Your task to perform on an android device: Do I have any events this weekend? Image 0: 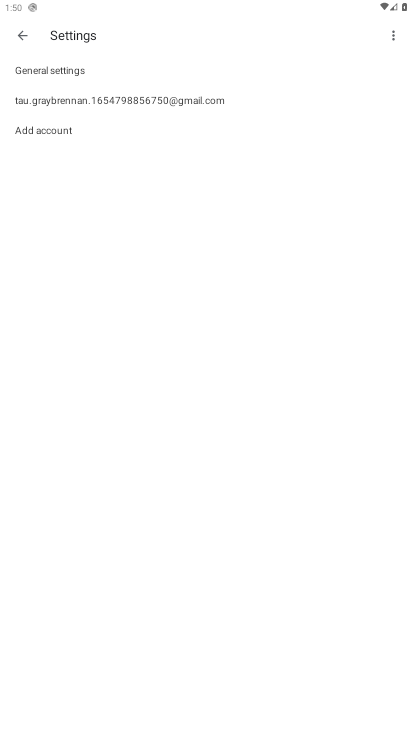
Step 0: press home button
Your task to perform on an android device: Do I have any events this weekend? Image 1: 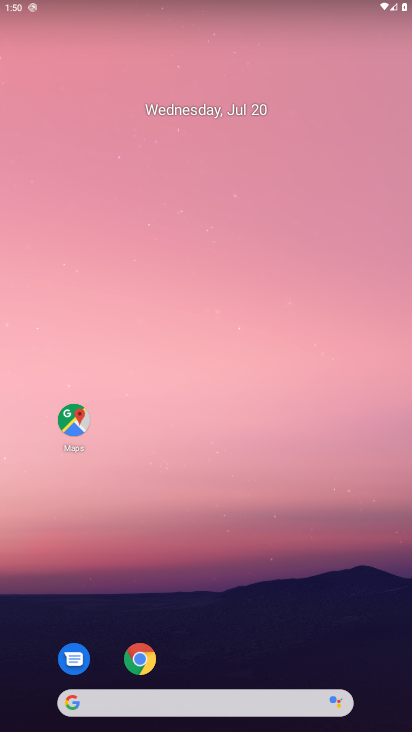
Step 1: drag from (35, 702) to (268, 94)
Your task to perform on an android device: Do I have any events this weekend? Image 2: 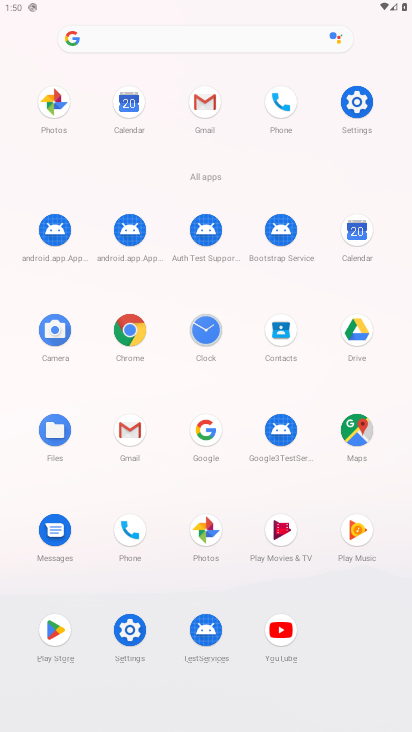
Step 2: click (351, 239)
Your task to perform on an android device: Do I have any events this weekend? Image 3: 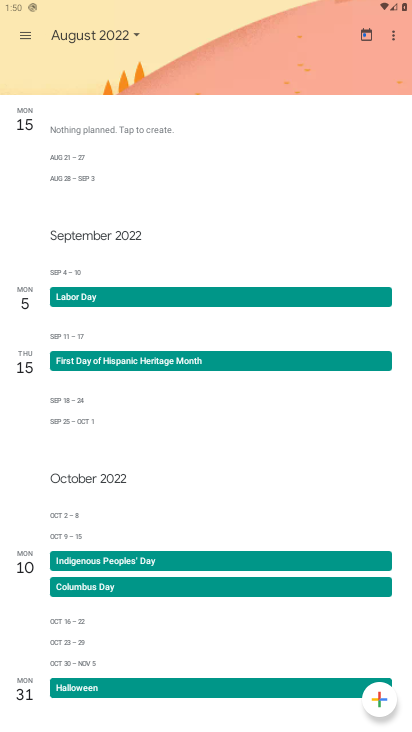
Step 3: click (62, 41)
Your task to perform on an android device: Do I have any events this weekend? Image 4: 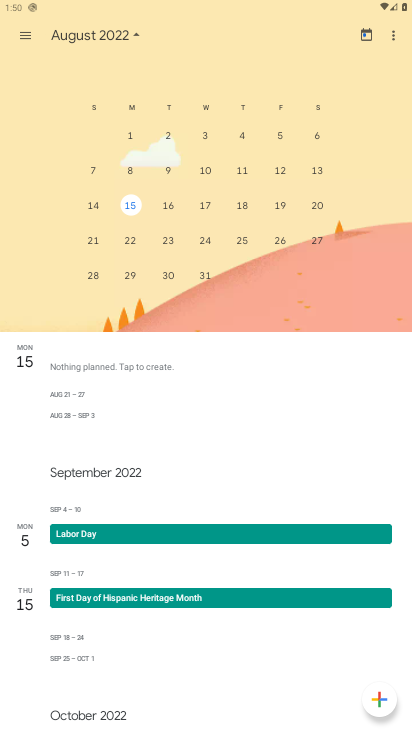
Step 4: task complete